Your task to perform on an android device: turn off data saver in the chrome app Image 0: 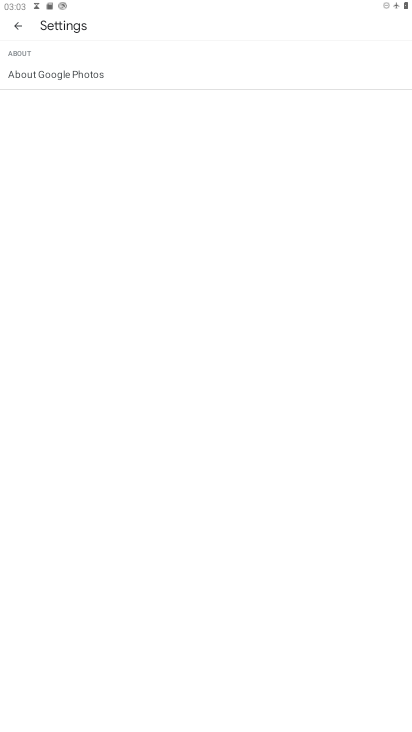
Step 0: press home button
Your task to perform on an android device: turn off data saver in the chrome app Image 1: 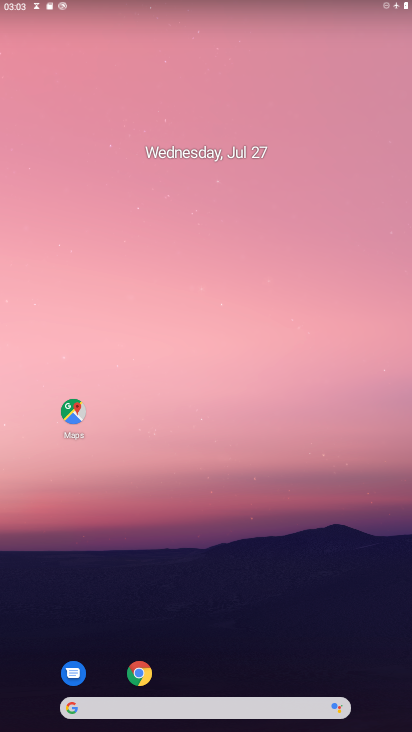
Step 1: drag from (208, 651) to (208, 237)
Your task to perform on an android device: turn off data saver in the chrome app Image 2: 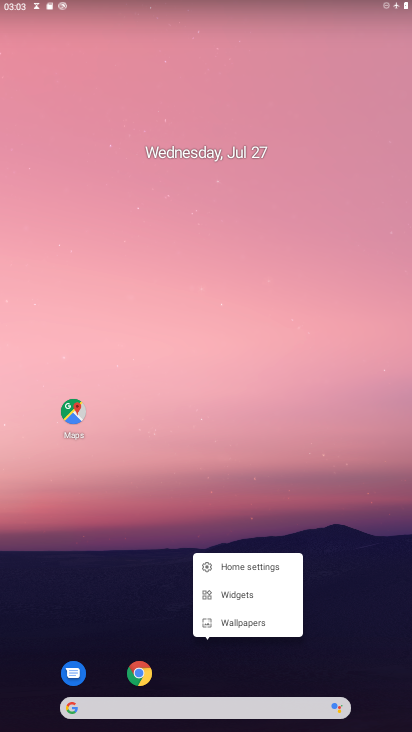
Step 2: click (167, 489)
Your task to perform on an android device: turn off data saver in the chrome app Image 3: 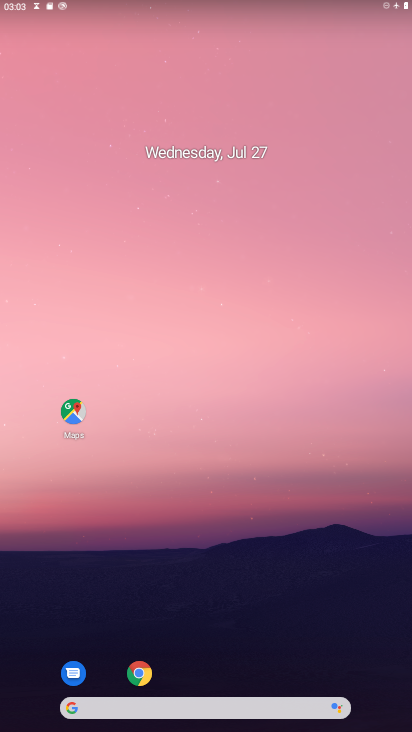
Step 3: drag from (274, 682) to (294, 201)
Your task to perform on an android device: turn off data saver in the chrome app Image 4: 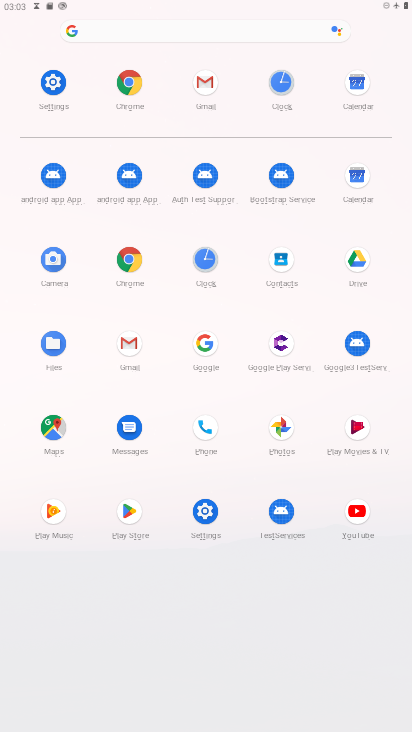
Step 4: click (129, 93)
Your task to perform on an android device: turn off data saver in the chrome app Image 5: 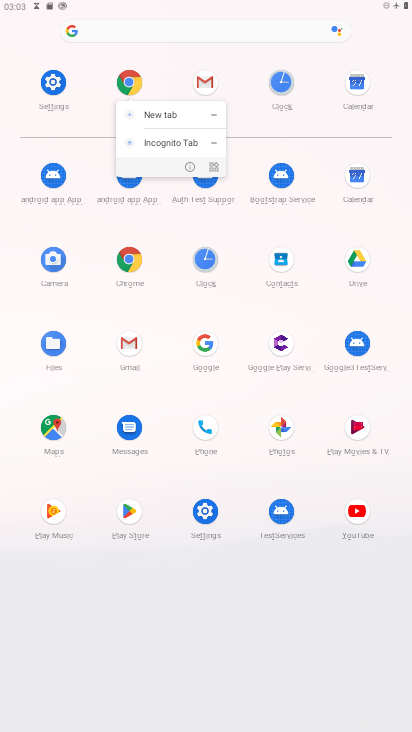
Step 5: click (122, 82)
Your task to perform on an android device: turn off data saver in the chrome app Image 6: 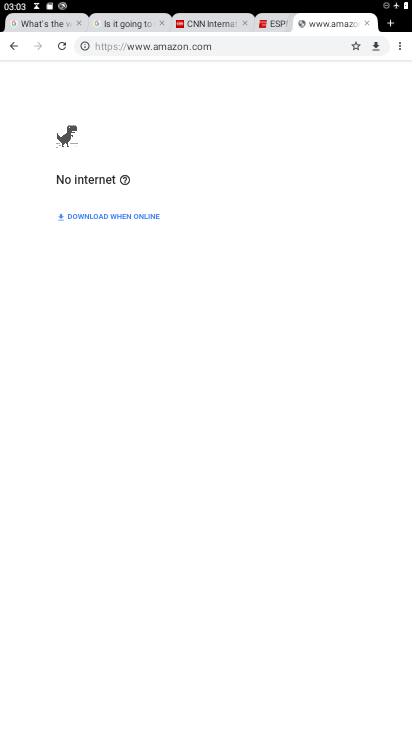
Step 6: click (396, 43)
Your task to perform on an android device: turn off data saver in the chrome app Image 7: 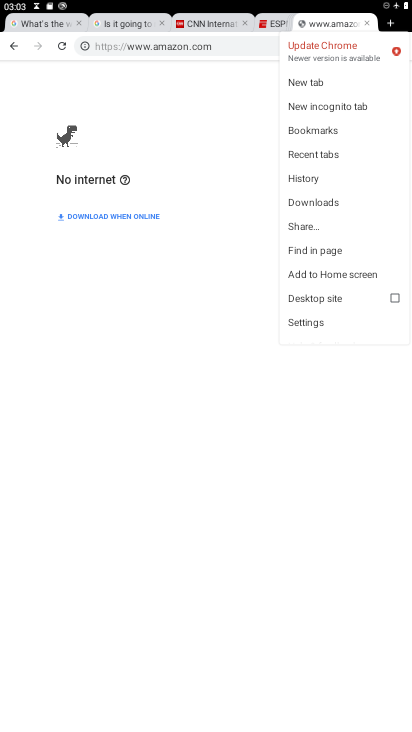
Step 7: click (306, 317)
Your task to perform on an android device: turn off data saver in the chrome app Image 8: 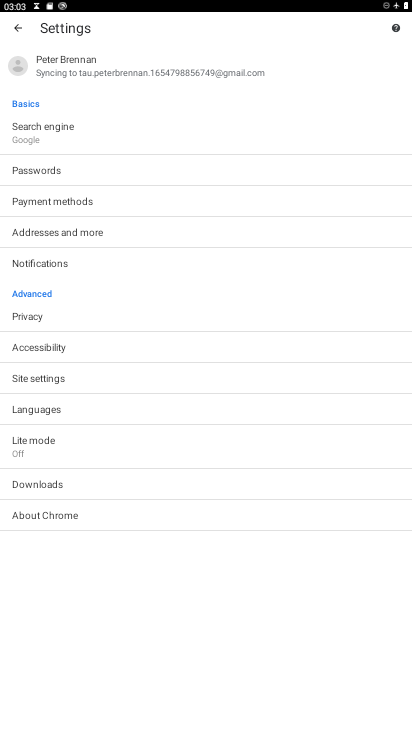
Step 8: click (44, 446)
Your task to perform on an android device: turn off data saver in the chrome app Image 9: 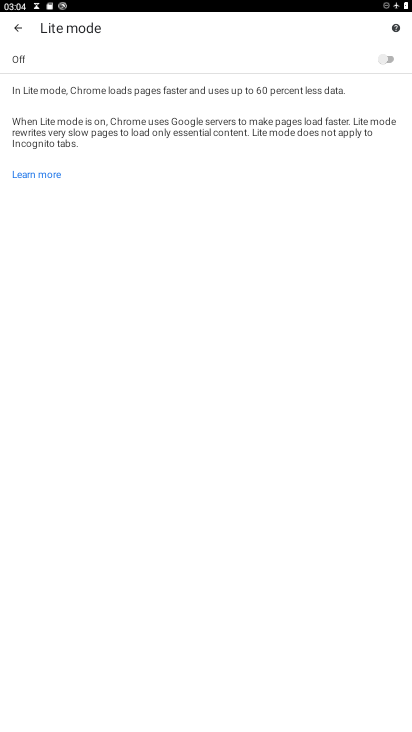
Step 9: task complete